Your task to perform on an android device: Do I have any events today? Image 0: 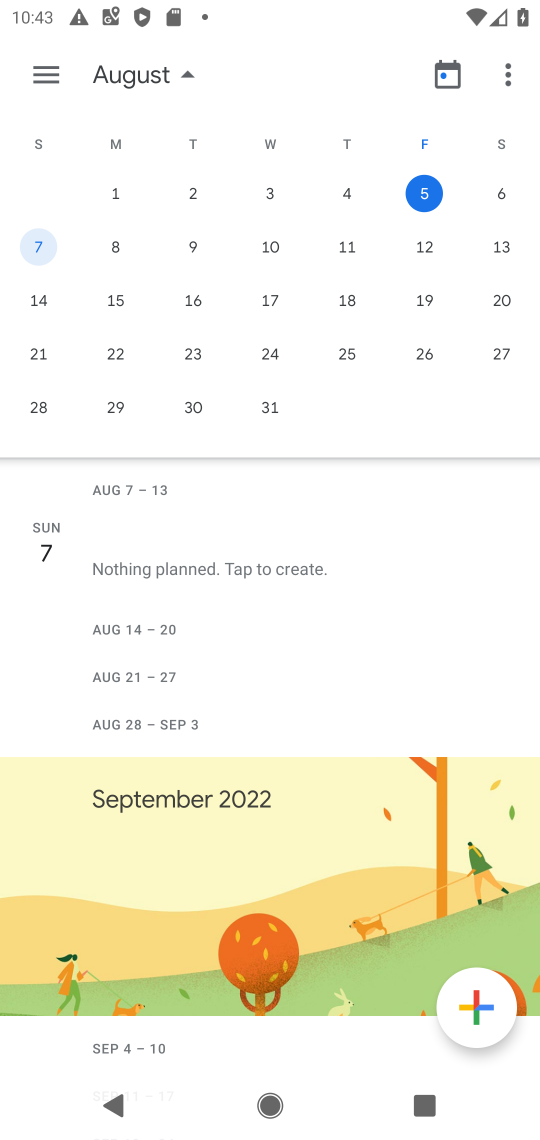
Step 0: click (500, 192)
Your task to perform on an android device: Do I have any events today? Image 1: 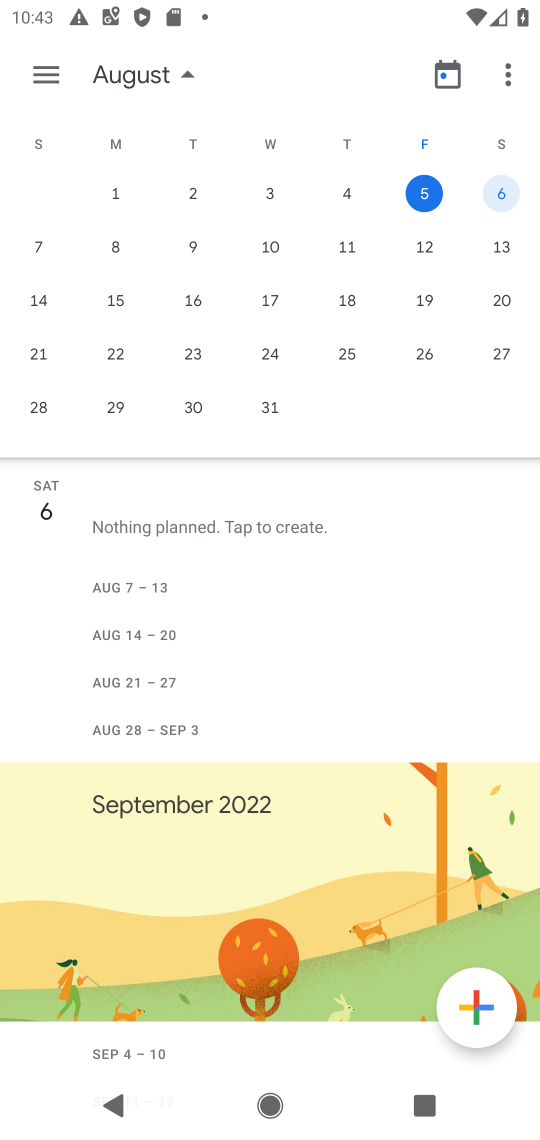
Step 1: task complete